Your task to perform on an android device: Go to location settings Image 0: 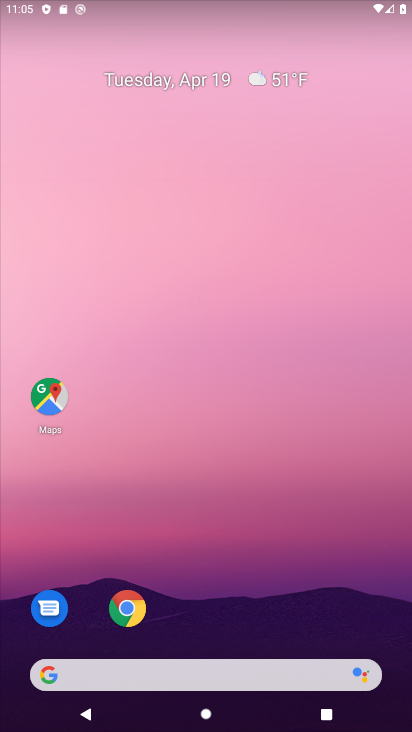
Step 0: drag from (360, 630) to (363, 97)
Your task to perform on an android device: Go to location settings Image 1: 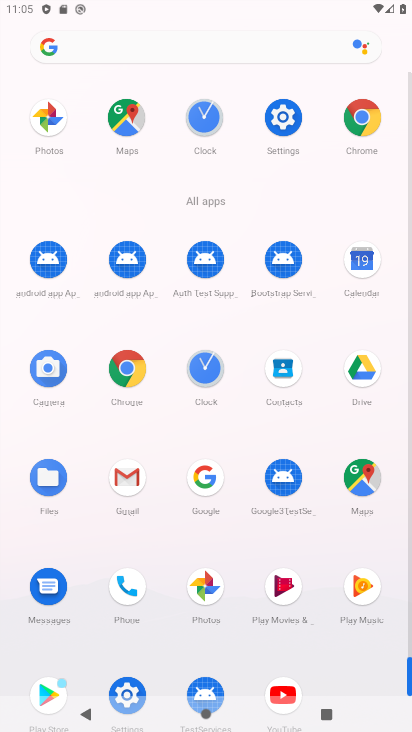
Step 1: click (287, 129)
Your task to perform on an android device: Go to location settings Image 2: 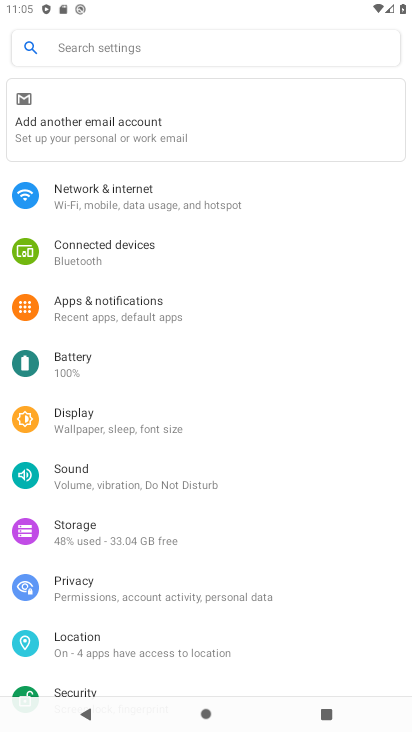
Step 2: drag from (345, 587) to (350, 386)
Your task to perform on an android device: Go to location settings Image 3: 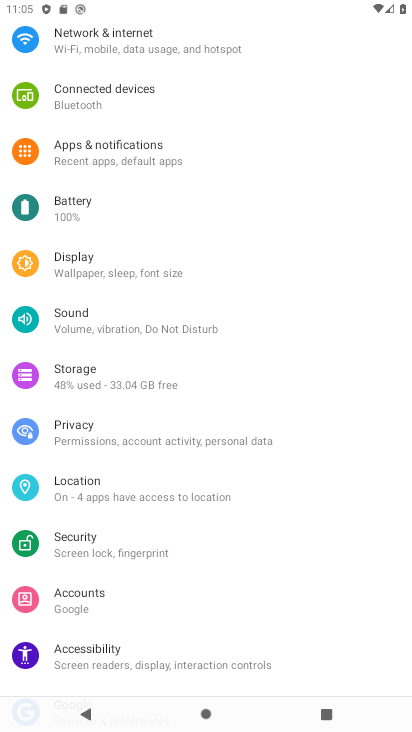
Step 3: drag from (353, 595) to (341, 350)
Your task to perform on an android device: Go to location settings Image 4: 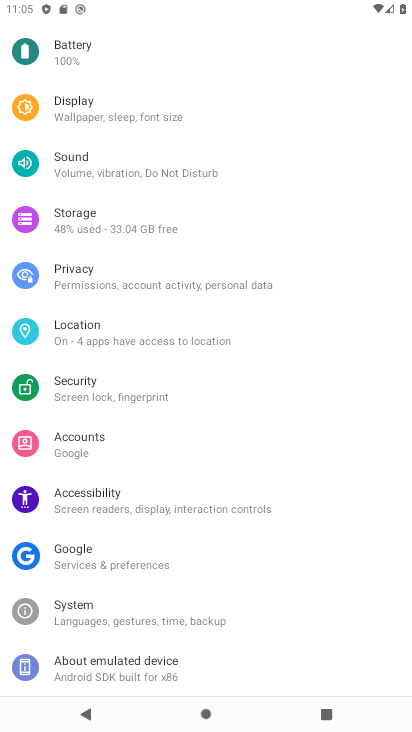
Step 4: drag from (342, 618) to (348, 430)
Your task to perform on an android device: Go to location settings Image 5: 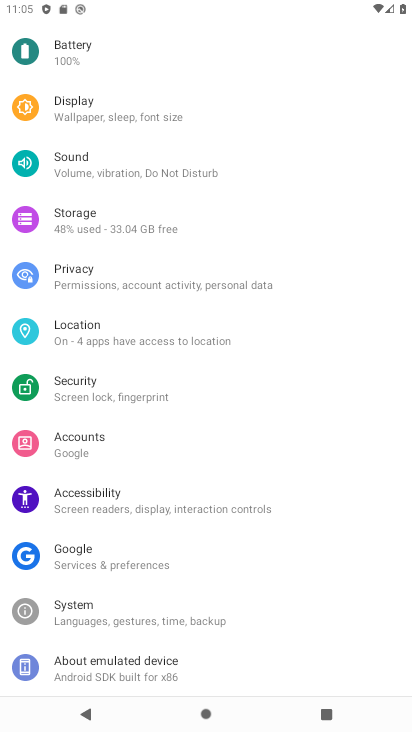
Step 5: drag from (338, 355) to (333, 495)
Your task to perform on an android device: Go to location settings Image 6: 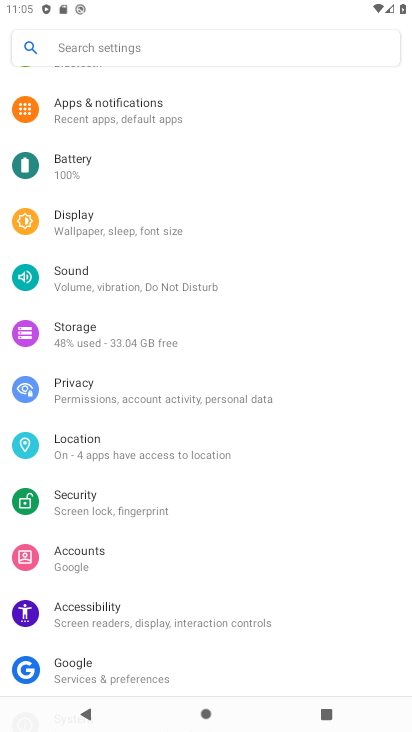
Step 6: drag from (327, 379) to (339, 531)
Your task to perform on an android device: Go to location settings Image 7: 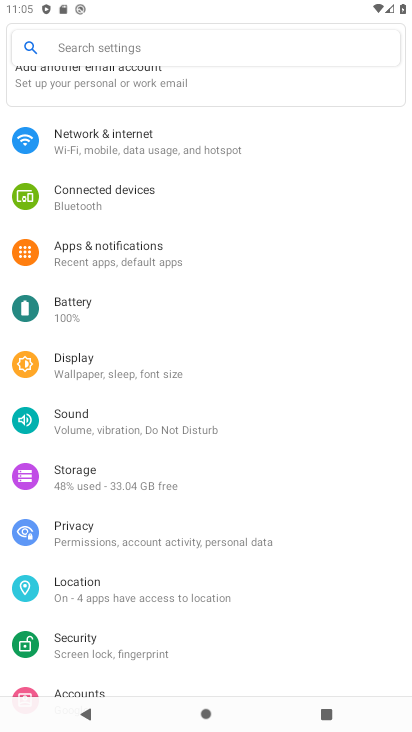
Step 7: click (129, 599)
Your task to perform on an android device: Go to location settings Image 8: 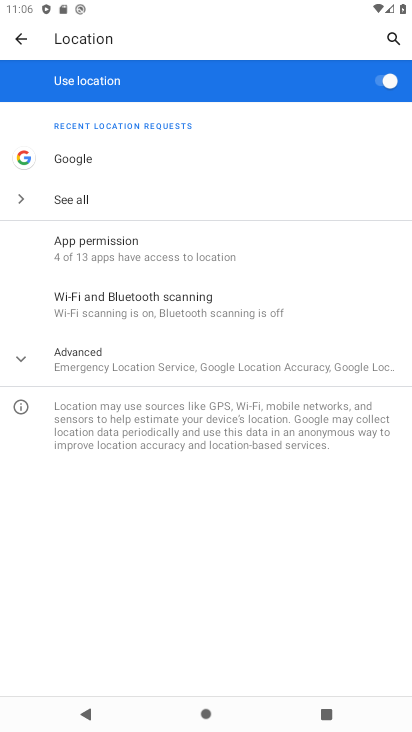
Step 8: task complete